Your task to perform on an android device: all mails in gmail Image 0: 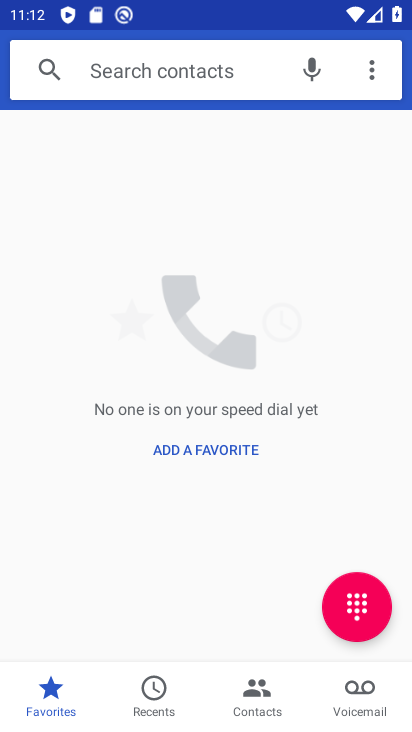
Step 0: press home button
Your task to perform on an android device: all mails in gmail Image 1: 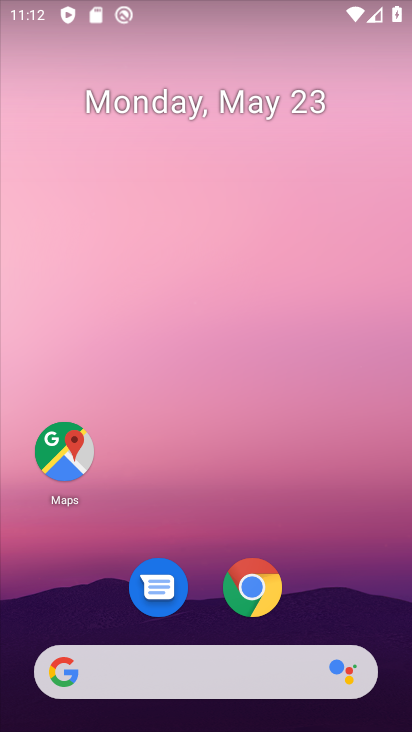
Step 1: drag from (376, 621) to (273, 102)
Your task to perform on an android device: all mails in gmail Image 2: 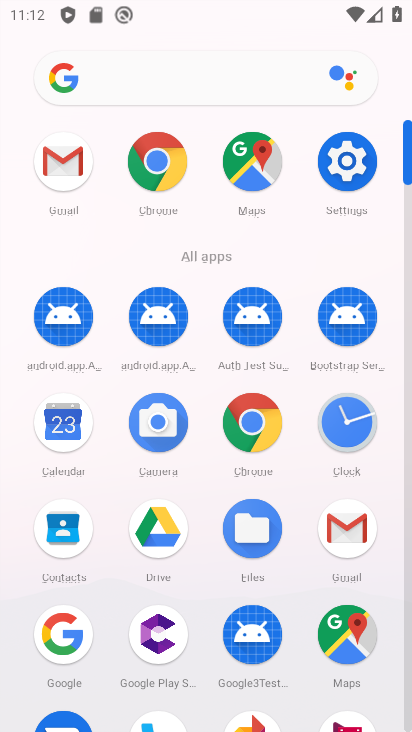
Step 2: click (67, 173)
Your task to perform on an android device: all mails in gmail Image 3: 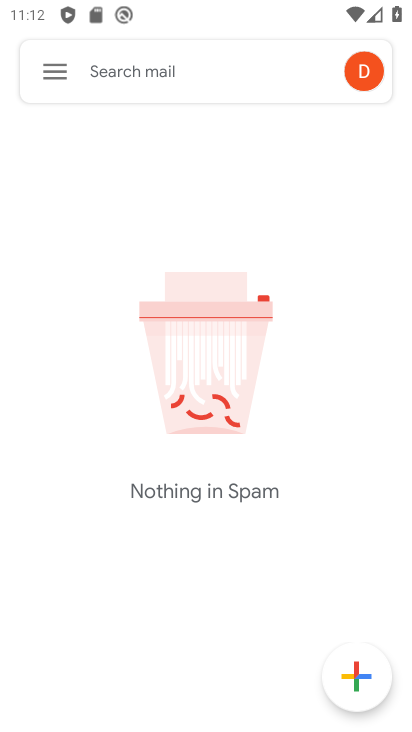
Step 3: click (52, 71)
Your task to perform on an android device: all mails in gmail Image 4: 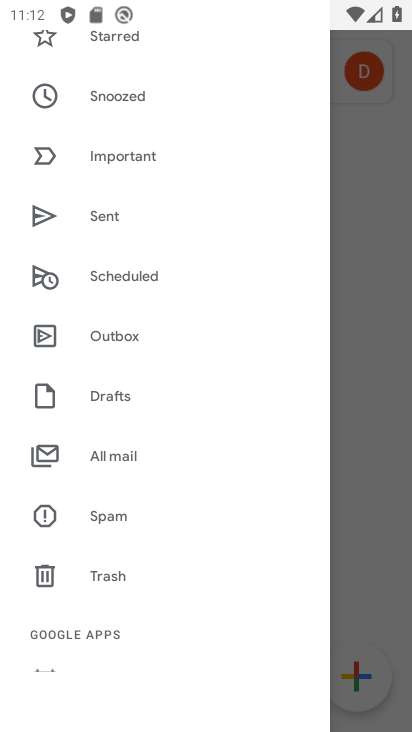
Step 4: click (124, 470)
Your task to perform on an android device: all mails in gmail Image 5: 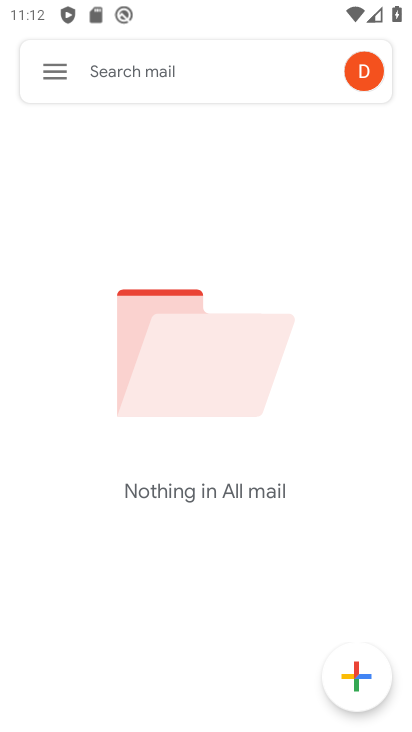
Step 5: task complete